Your task to perform on an android device: check android version Image 0: 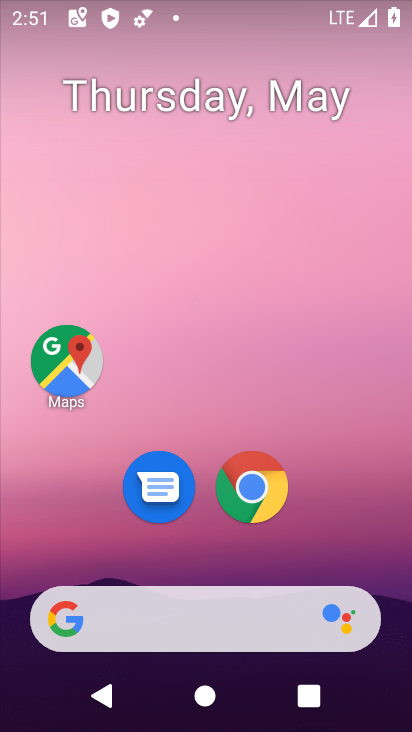
Step 0: drag from (191, 535) to (187, 122)
Your task to perform on an android device: check android version Image 1: 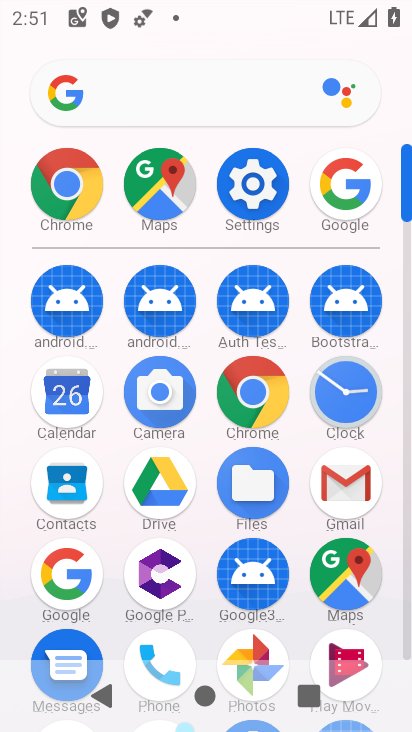
Step 1: click (246, 188)
Your task to perform on an android device: check android version Image 2: 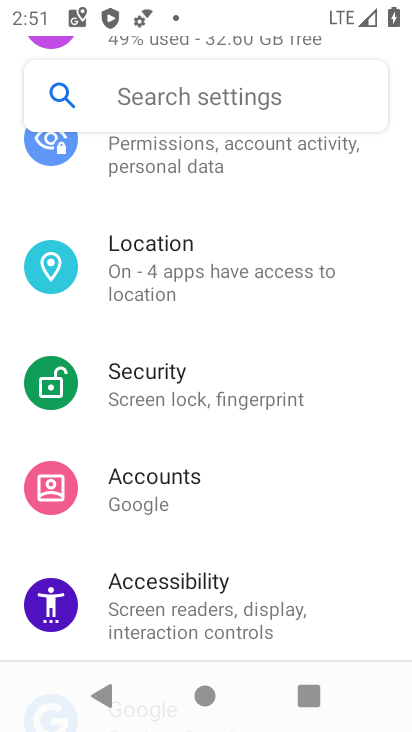
Step 2: drag from (180, 504) to (191, 200)
Your task to perform on an android device: check android version Image 3: 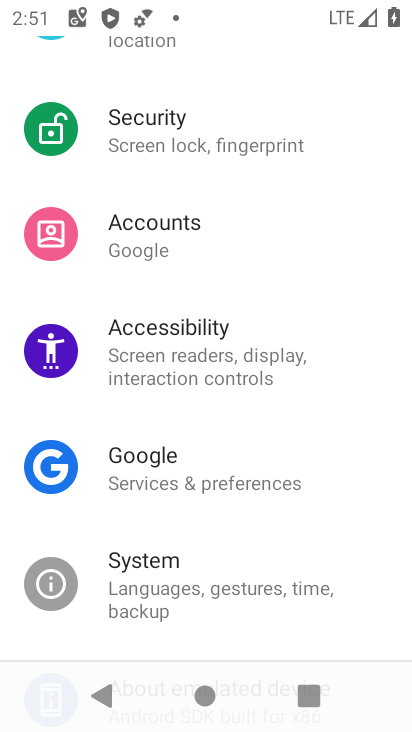
Step 3: drag from (221, 443) to (269, 182)
Your task to perform on an android device: check android version Image 4: 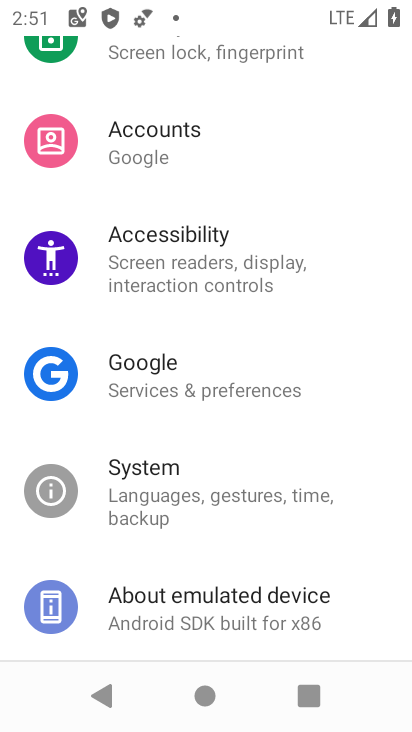
Step 4: drag from (251, 332) to (296, 68)
Your task to perform on an android device: check android version Image 5: 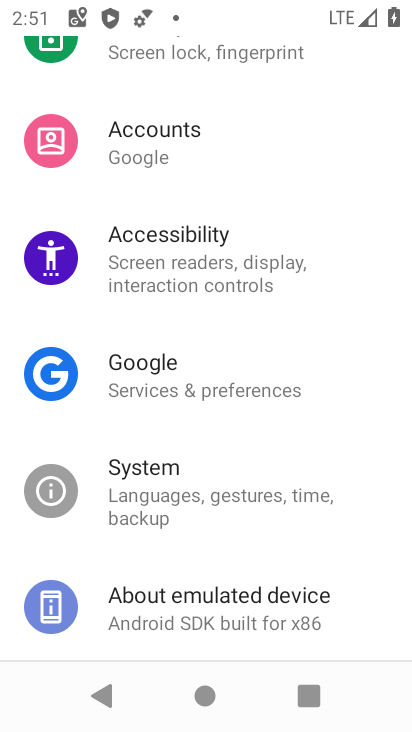
Step 5: drag from (198, 526) to (227, 166)
Your task to perform on an android device: check android version Image 6: 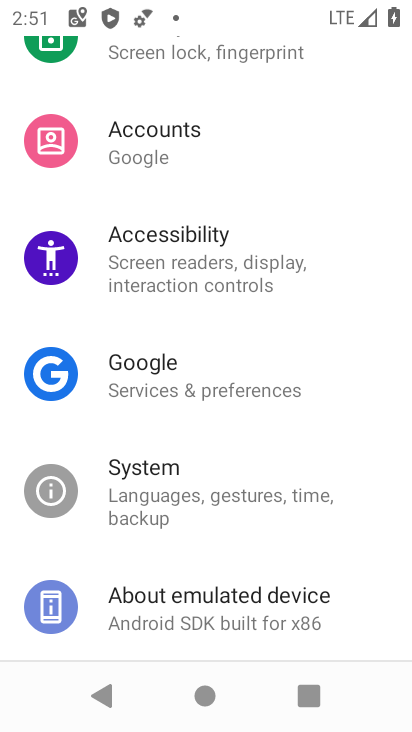
Step 6: drag from (177, 518) to (215, 234)
Your task to perform on an android device: check android version Image 7: 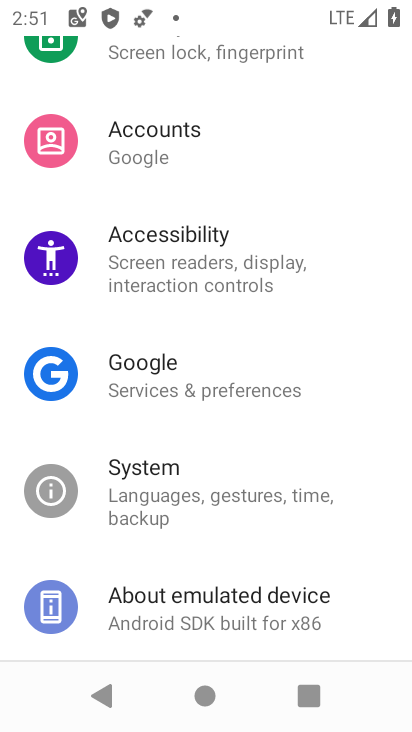
Step 7: click (210, 615)
Your task to perform on an android device: check android version Image 8: 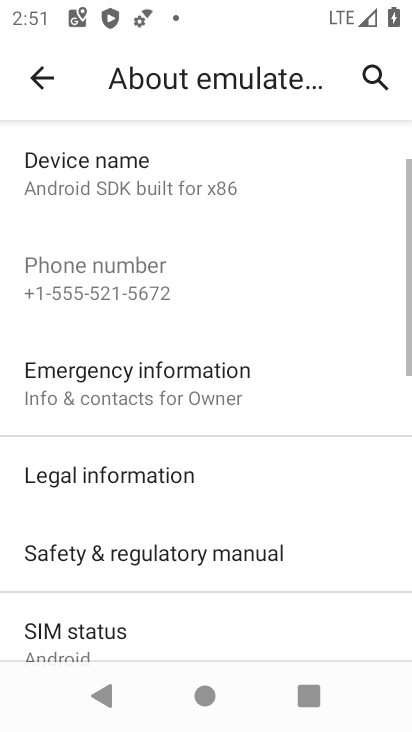
Step 8: drag from (174, 509) to (262, 168)
Your task to perform on an android device: check android version Image 9: 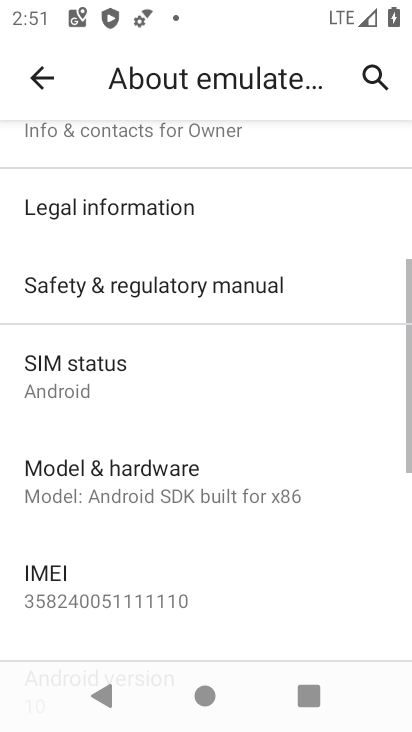
Step 9: drag from (193, 512) to (230, 228)
Your task to perform on an android device: check android version Image 10: 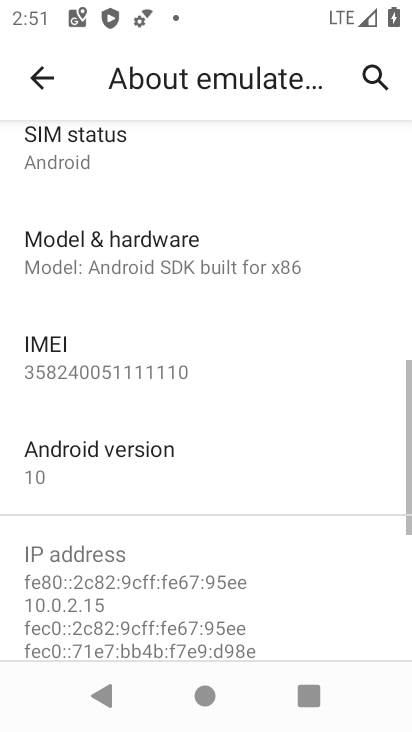
Step 10: click (187, 472)
Your task to perform on an android device: check android version Image 11: 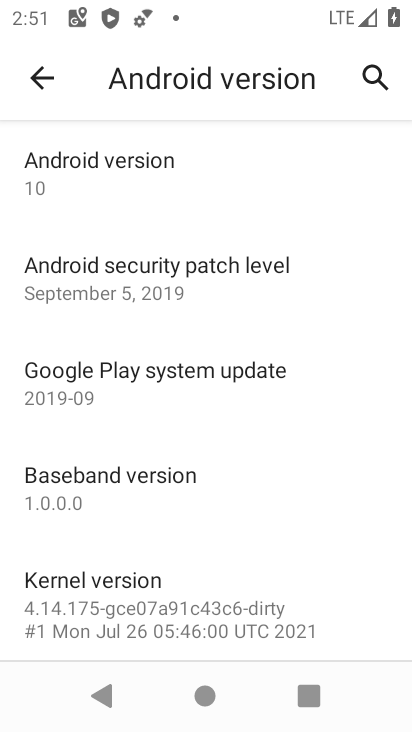
Step 11: task complete